Your task to perform on an android device: turn off notifications settings in the gmail app Image 0: 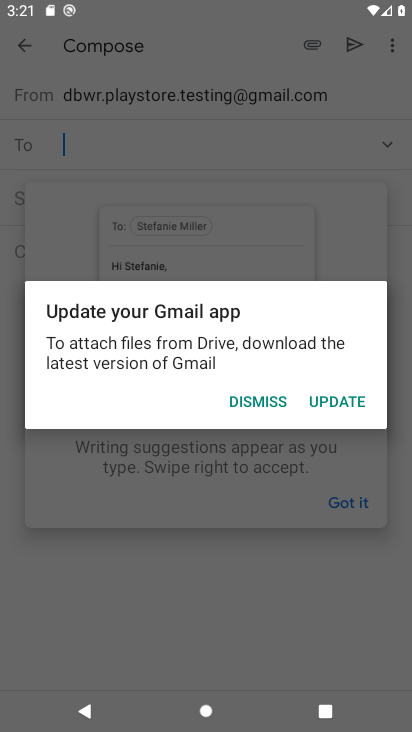
Step 0: press home button
Your task to perform on an android device: turn off notifications settings in the gmail app Image 1: 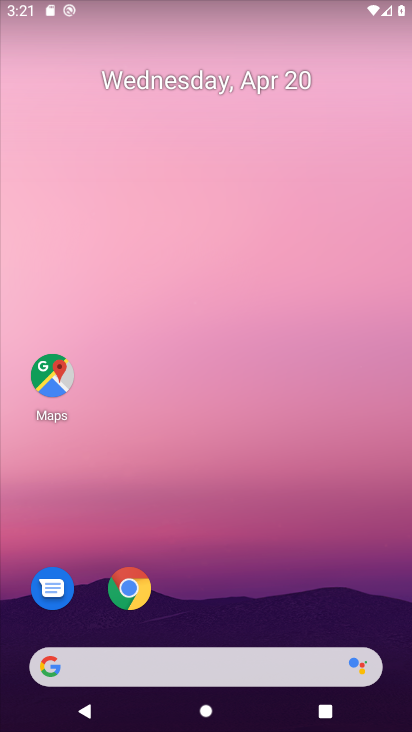
Step 1: drag from (268, 617) to (198, 69)
Your task to perform on an android device: turn off notifications settings in the gmail app Image 2: 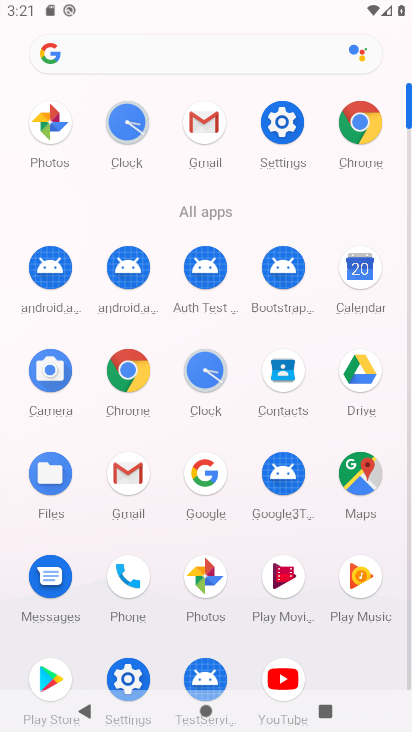
Step 2: click (134, 480)
Your task to perform on an android device: turn off notifications settings in the gmail app Image 3: 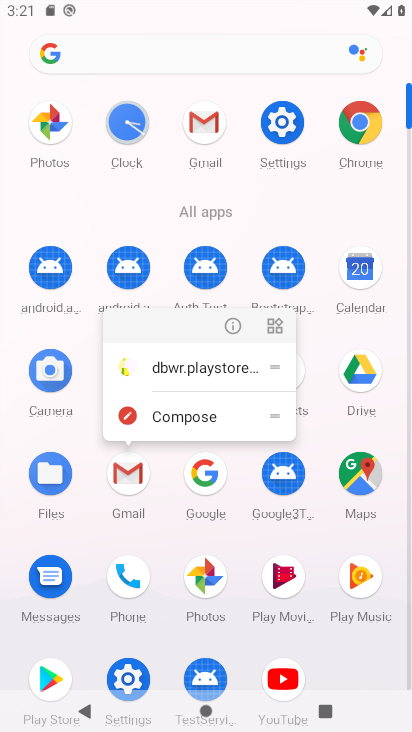
Step 3: click (134, 479)
Your task to perform on an android device: turn off notifications settings in the gmail app Image 4: 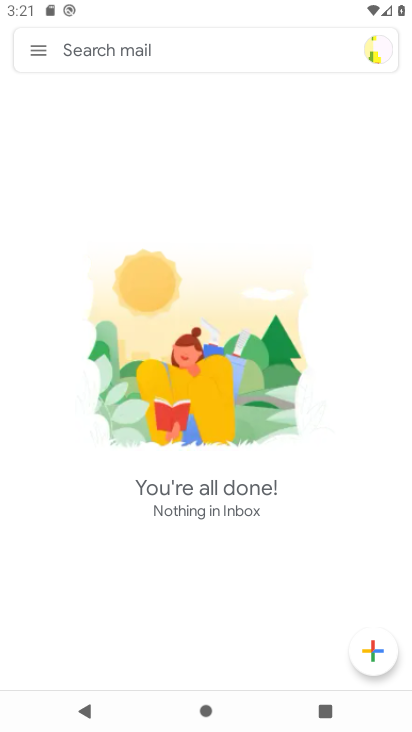
Step 4: click (29, 58)
Your task to perform on an android device: turn off notifications settings in the gmail app Image 5: 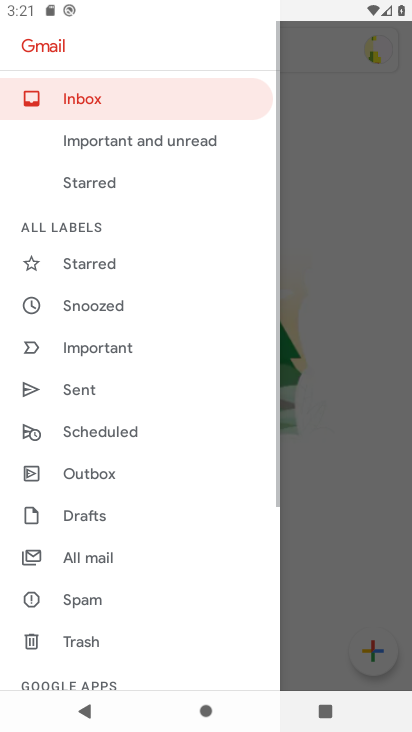
Step 5: drag from (115, 594) to (104, 355)
Your task to perform on an android device: turn off notifications settings in the gmail app Image 6: 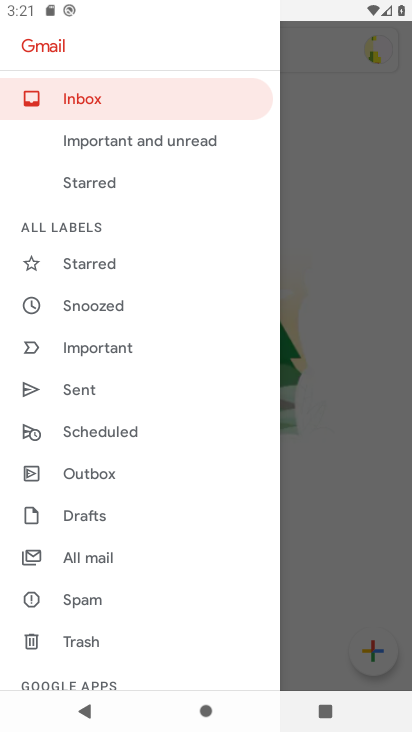
Step 6: drag from (129, 640) to (109, 388)
Your task to perform on an android device: turn off notifications settings in the gmail app Image 7: 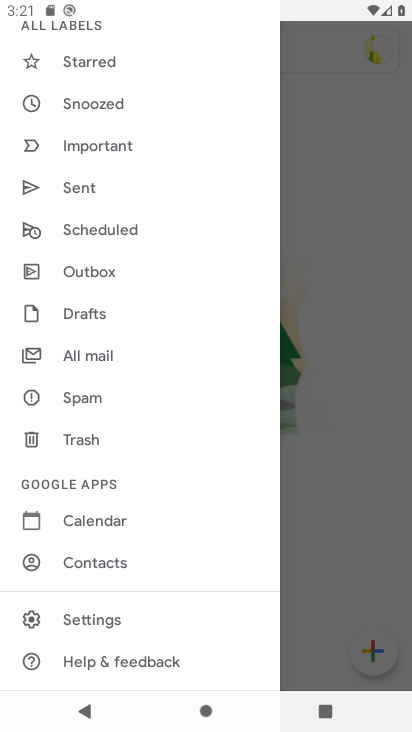
Step 7: click (123, 628)
Your task to perform on an android device: turn off notifications settings in the gmail app Image 8: 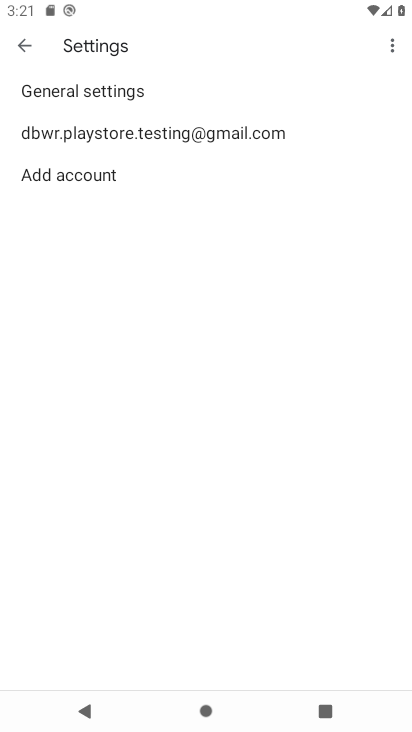
Step 8: click (123, 132)
Your task to perform on an android device: turn off notifications settings in the gmail app Image 9: 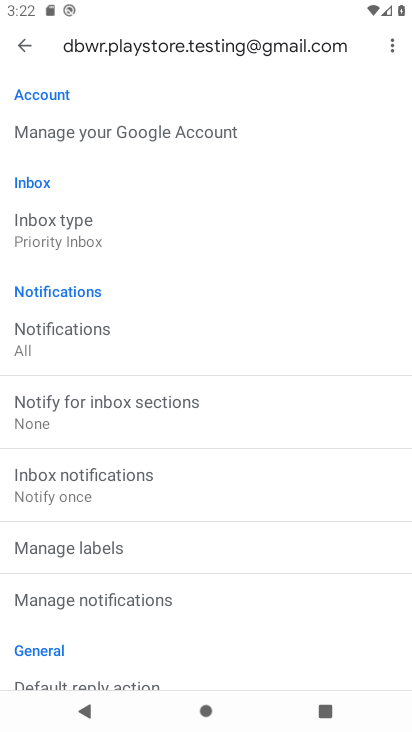
Step 9: click (135, 605)
Your task to perform on an android device: turn off notifications settings in the gmail app Image 10: 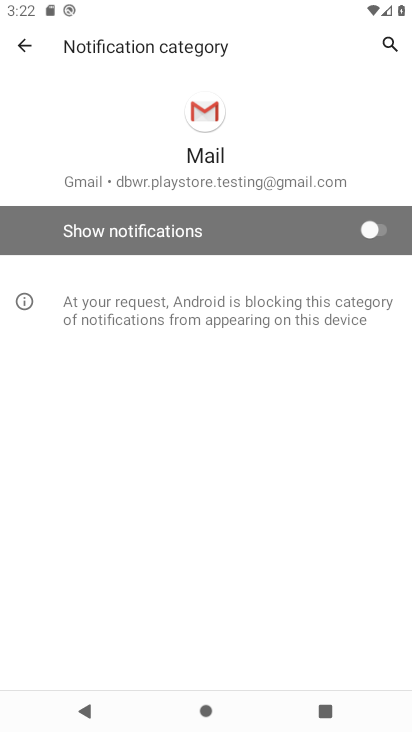
Step 10: task complete